Your task to perform on an android device: open app "Firefox Browser" Image 0: 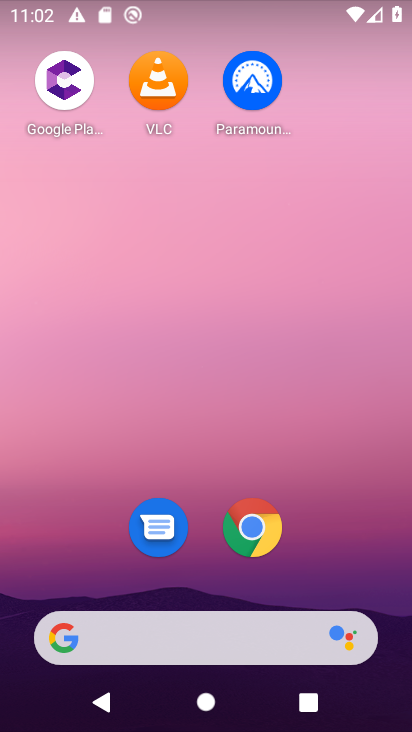
Step 0: drag from (184, 566) to (322, 32)
Your task to perform on an android device: open app "Firefox Browser" Image 1: 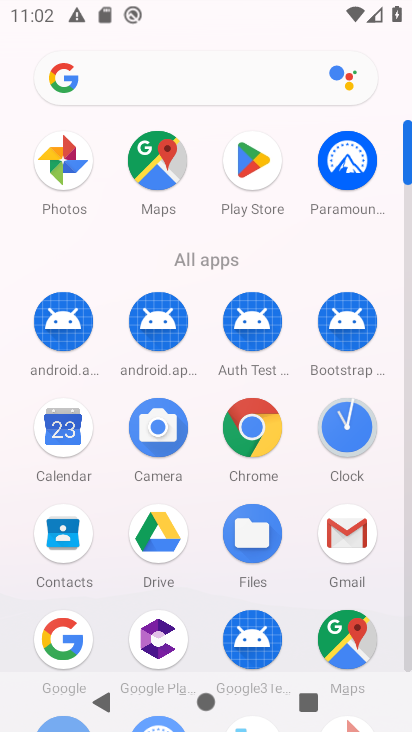
Step 1: click (255, 176)
Your task to perform on an android device: open app "Firefox Browser" Image 2: 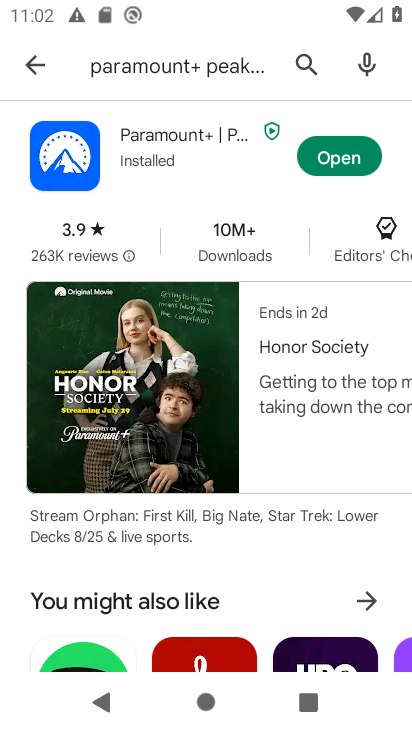
Step 2: click (315, 56)
Your task to perform on an android device: open app "Firefox Browser" Image 3: 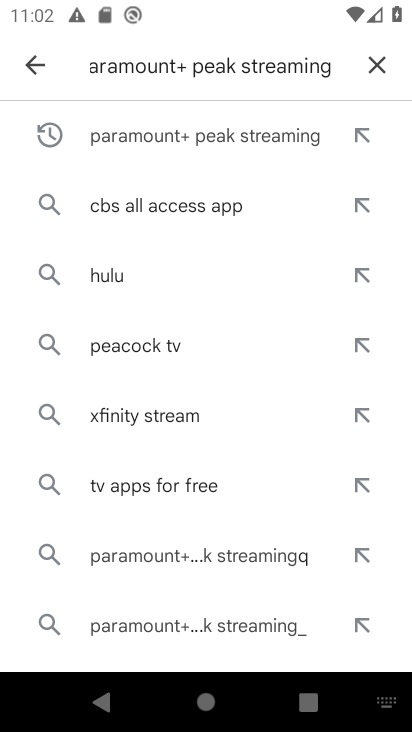
Step 3: click (381, 56)
Your task to perform on an android device: open app "Firefox Browser" Image 4: 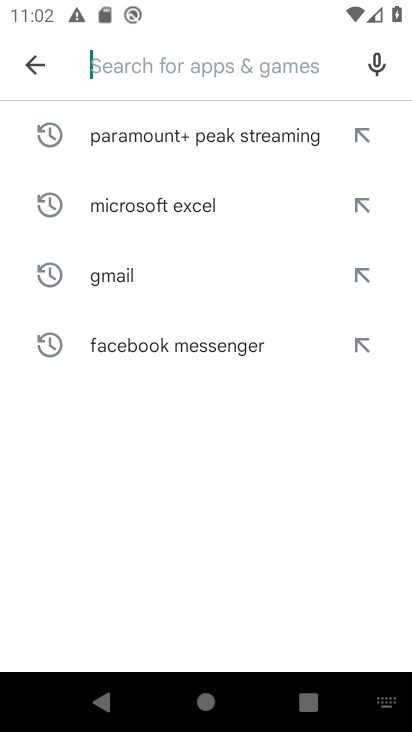
Step 4: click (199, 67)
Your task to perform on an android device: open app "Firefox Browser" Image 5: 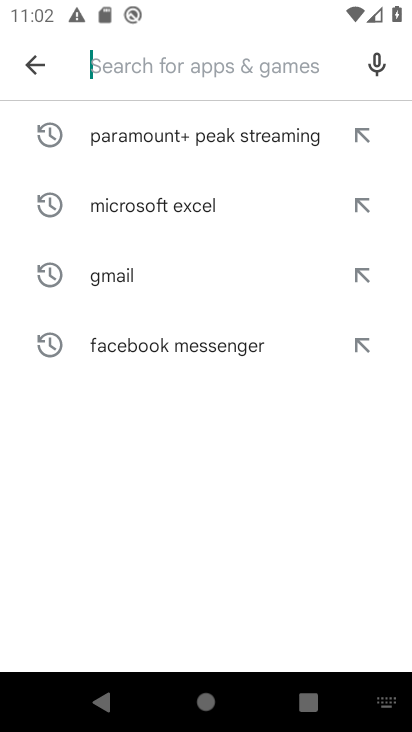
Step 5: type "Firefox Browser"
Your task to perform on an android device: open app "Firefox Browser" Image 6: 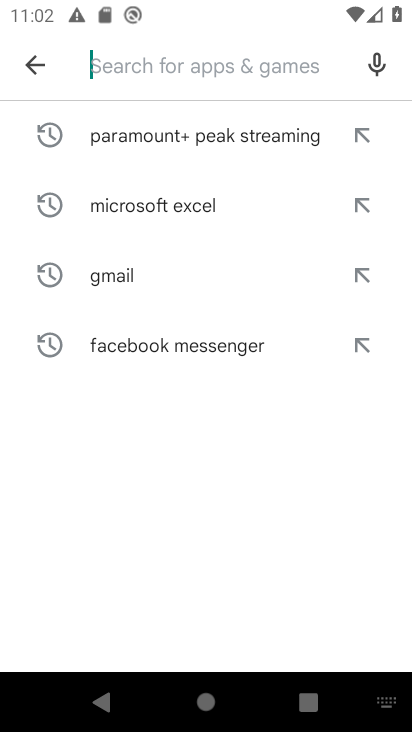
Step 6: click (67, 549)
Your task to perform on an android device: open app "Firefox Browser" Image 7: 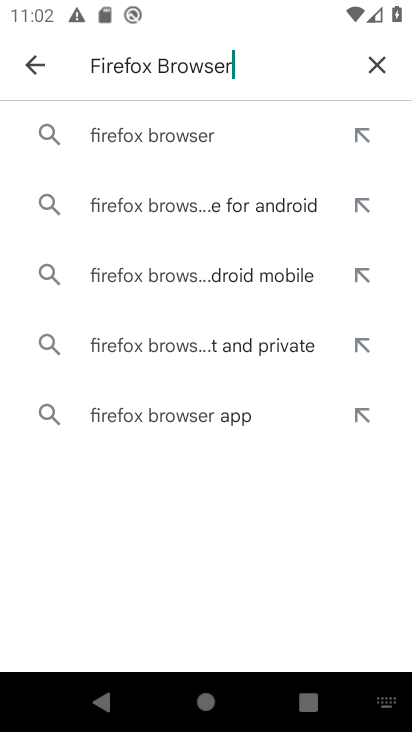
Step 7: click (144, 129)
Your task to perform on an android device: open app "Firefox Browser" Image 8: 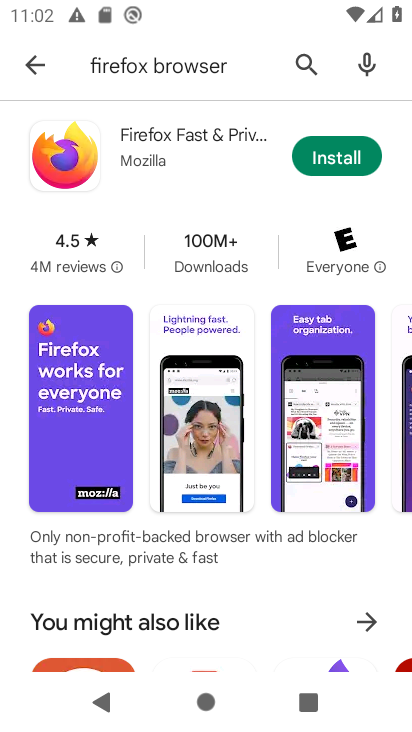
Step 8: task complete